Your task to perform on an android device: Go to accessibility settings Image 0: 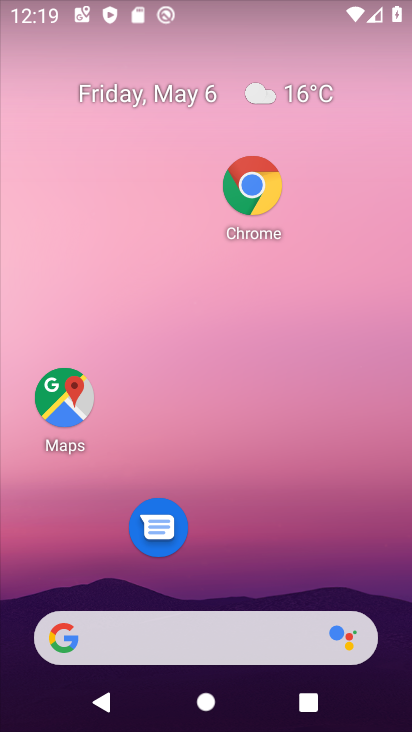
Step 0: drag from (181, 517) to (220, 77)
Your task to perform on an android device: Go to accessibility settings Image 1: 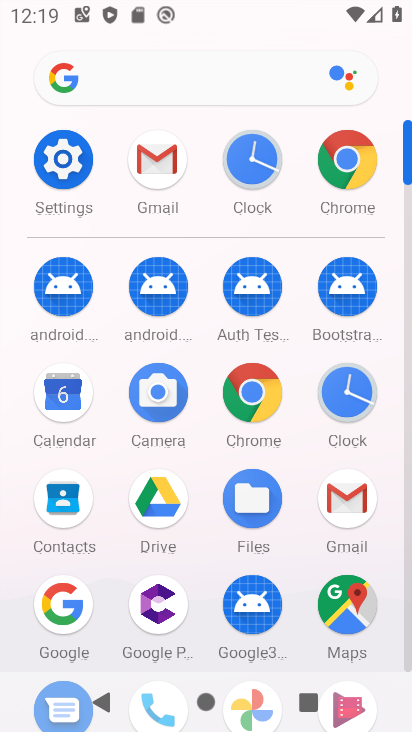
Step 1: click (87, 176)
Your task to perform on an android device: Go to accessibility settings Image 2: 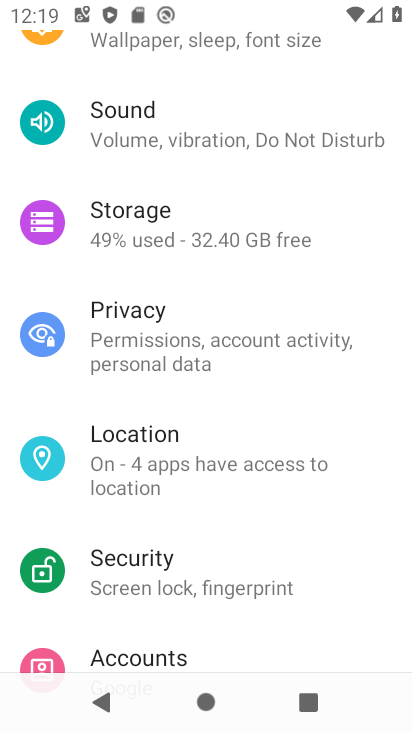
Step 2: drag from (200, 509) to (250, 188)
Your task to perform on an android device: Go to accessibility settings Image 3: 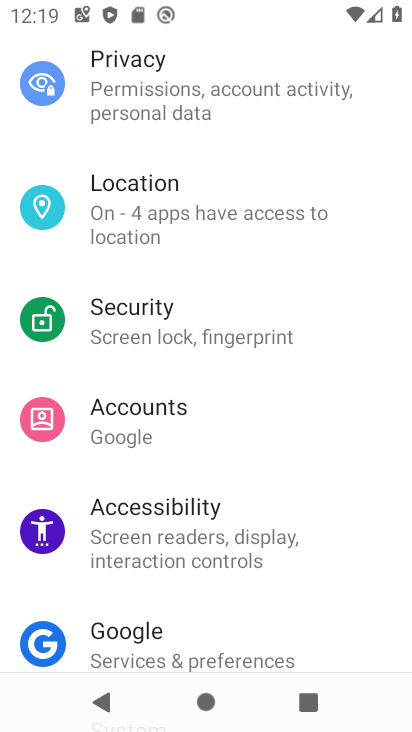
Step 3: click (179, 548)
Your task to perform on an android device: Go to accessibility settings Image 4: 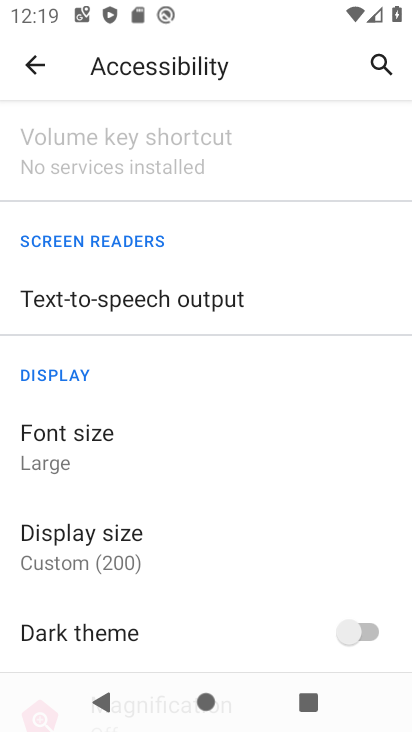
Step 4: task complete